Your task to perform on an android device: visit the assistant section in the google photos Image 0: 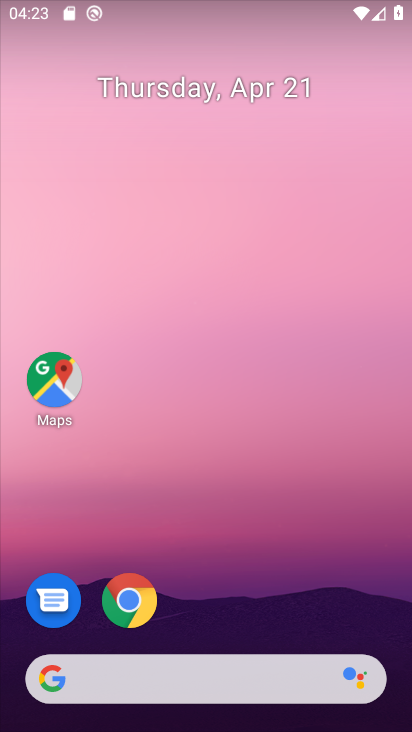
Step 0: drag from (336, 622) to (374, 47)
Your task to perform on an android device: visit the assistant section in the google photos Image 1: 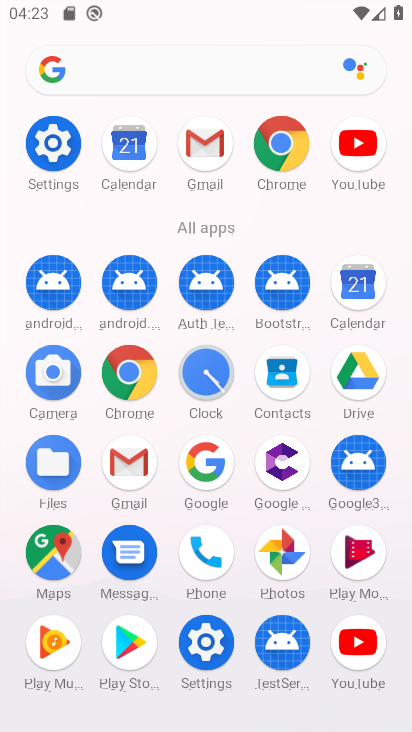
Step 1: click (279, 557)
Your task to perform on an android device: visit the assistant section in the google photos Image 2: 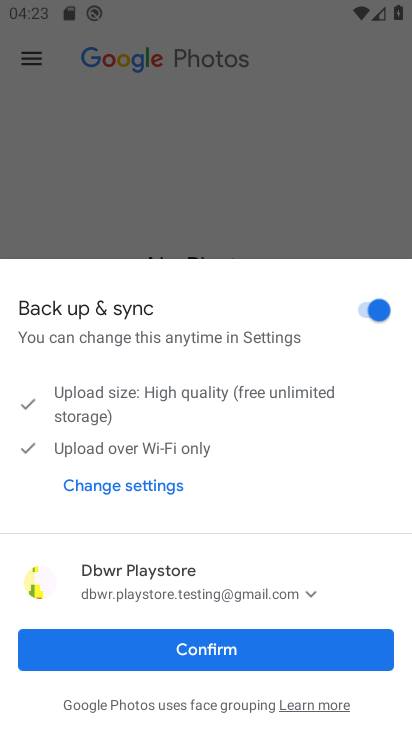
Step 2: click (247, 657)
Your task to perform on an android device: visit the assistant section in the google photos Image 3: 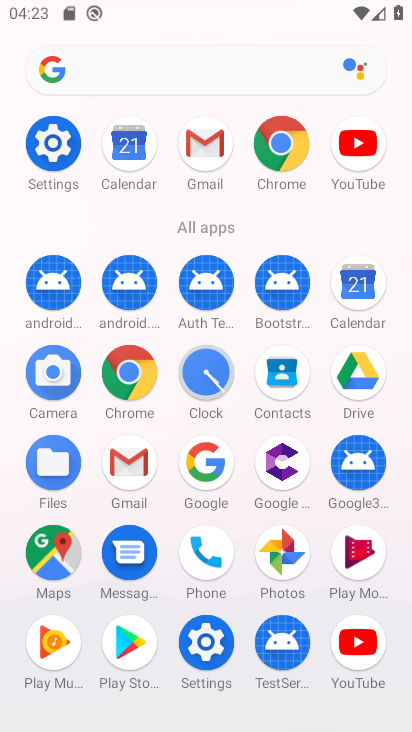
Step 3: click (280, 547)
Your task to perform on an android device: visit the assistant section in the google photos Image 4: 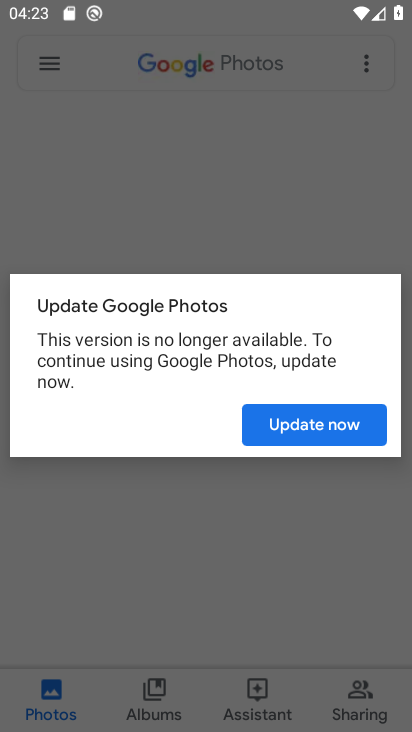
Step 4: click (279, 434)
Your task to perform on an android device: visit the assistant section in the google photos Image 5: 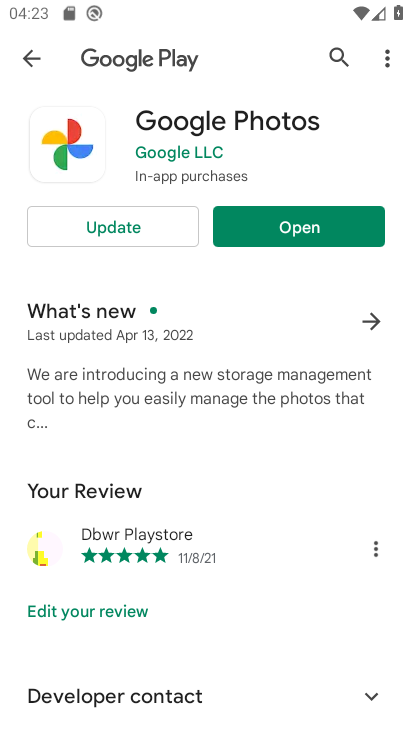
Step 5: click (268, 248)
Your task to perform on an android device: visit the assistant section in the google photos Image 6: 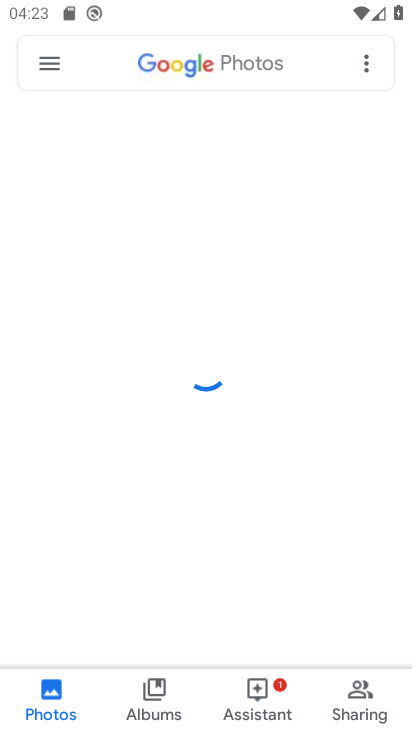
Step 6: click (246, 701)
Your task to perform on an android device: visit the assistant section in the google photos Image 7: 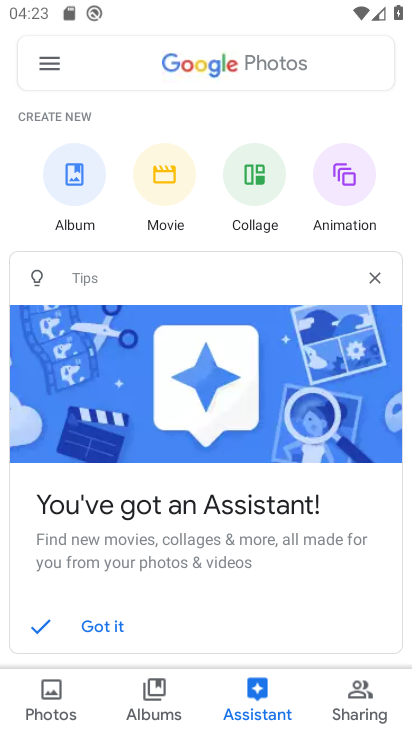
Step 7: task complete